Your task to perform on an android device: delete browsing data in the chrome app Image 0: 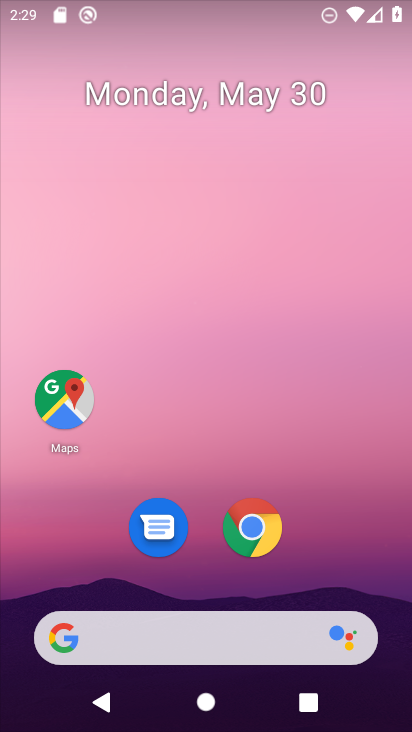
Step 0: press back button
Your task to perform on an android device: delete browsing data in the chrome app Image 1: 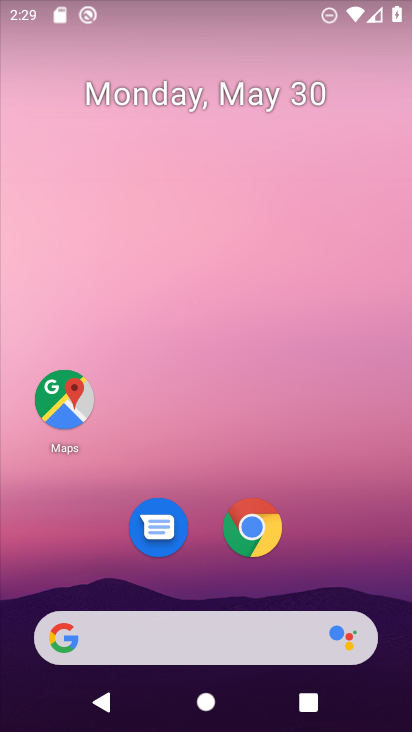
Step 1: drag from (278, 626) to (241, 193)
Your task to perform on an android device: delete browsing data in the chrome app Image 2: 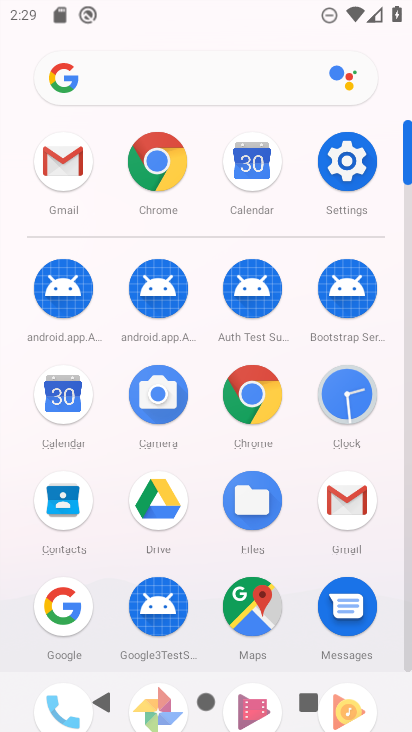
Step 2: click (151, 154)
Your task to perform on an android device: delete browsing data in the chrome app Image 3: 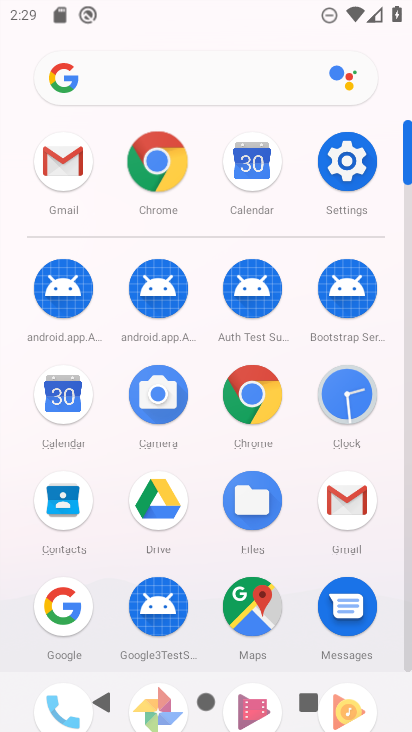
Step 3: click (164, 160)
Your task to perform on an android device: delete browsing data in the chrome app Image 4: 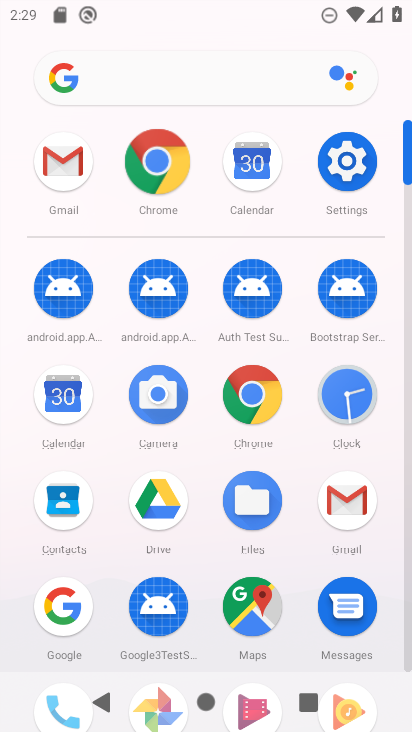
Step 4: click (164, 160)
Your task to perform on an android device: delete browsing data in the chrome app Image 5: 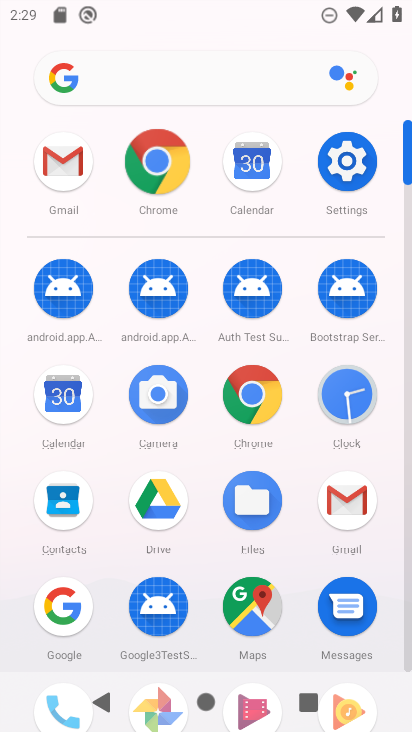
Step 5: click (165, 161)
Your task to perform on an android device: delete browsing data in the chrome app Image 6: 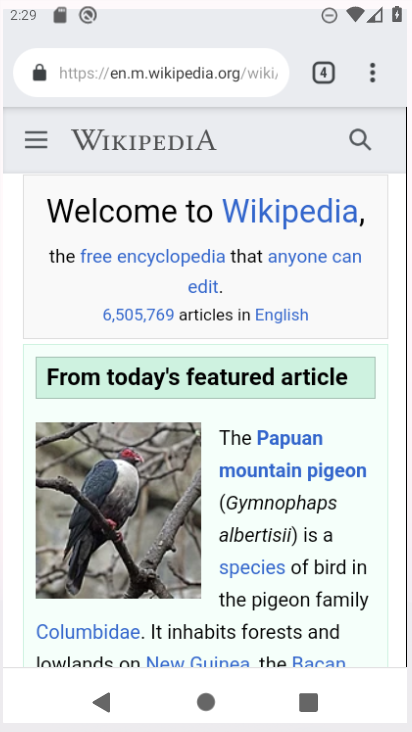
Step 6: click (168, 156)
Your task to perform on an android device: delete browsing data in the chrome app Image 7: 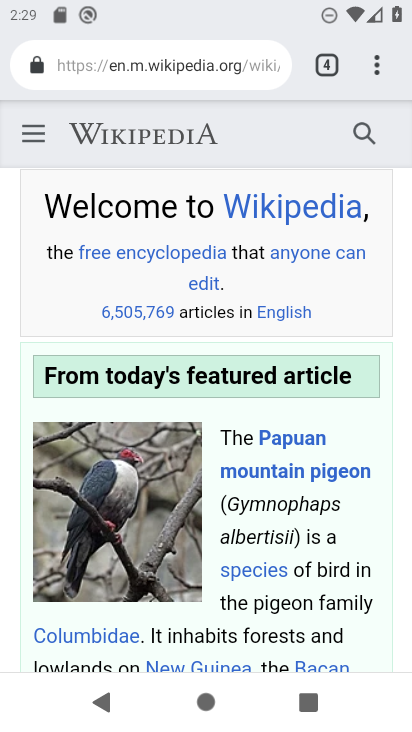
Step 7: click (169, 155)
Your task to perform on an android device: delete browsing data in the chrome app Image 8: 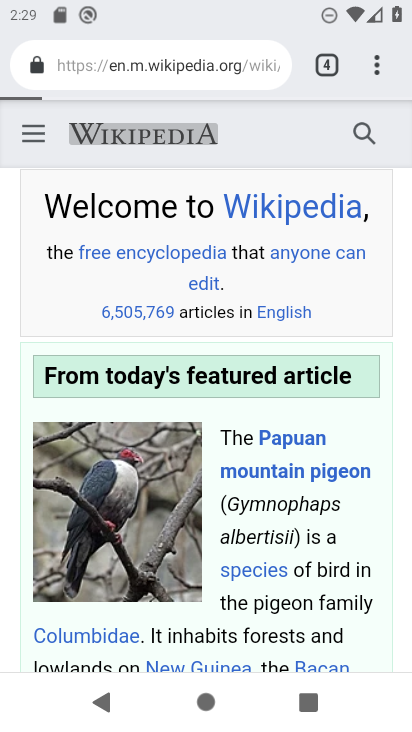
Step 8: click (169, 155)
Your task to perform on an android device: delete browsing data in the chrome app Image 9: 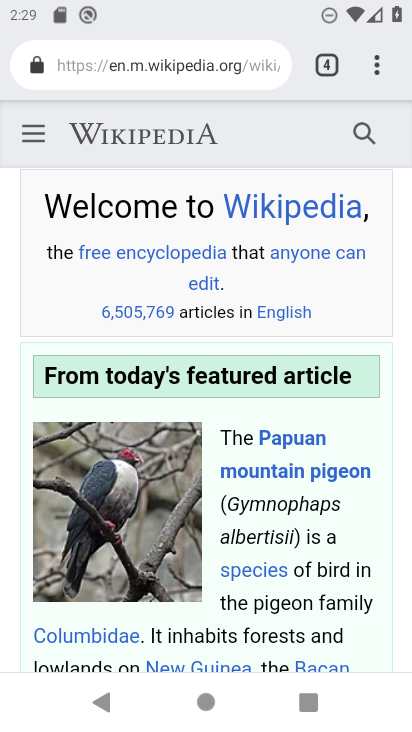
Step 9: drag from (376, 63) to (127, 369)
Your task to perform on an android device: delete browsing data in the chrome app Image 10: 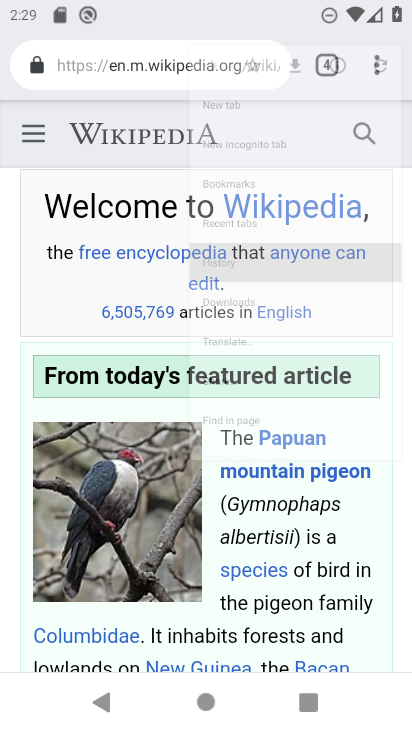
Step 10: click (127, 369)
Your task to perform on an android device: delete browsing data in the chrome app Image 11: 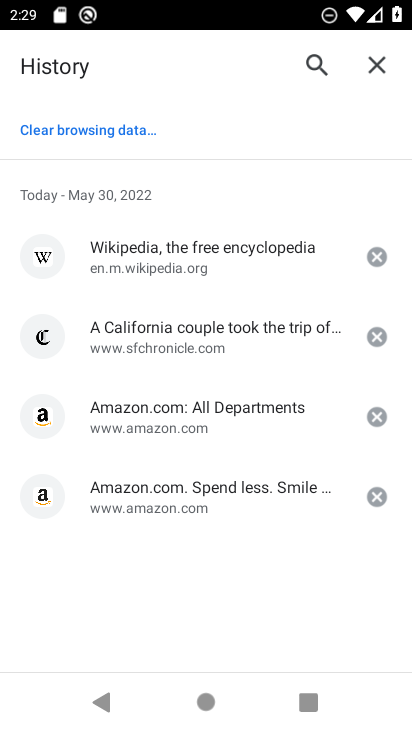
Step 11: click (105, 140)
Your task to perform on an android device: delete browsing data in the chrome app Image 12: 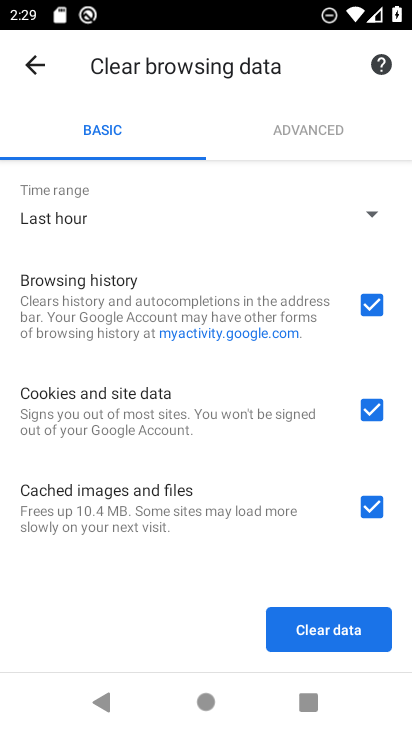
Step 12: click (330, 628)
Your task to perform on an android device: delete browsing data in the chrome app Image 13: 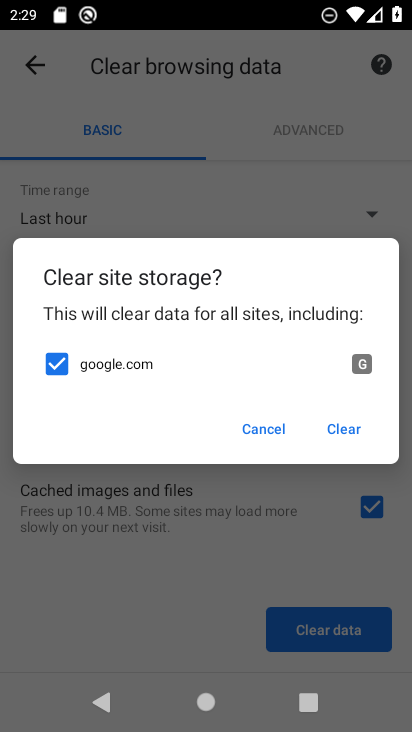
Step 13: click (341, 421)
Your task to perform on an android device: delete browsing data in the chrome app Image 14: 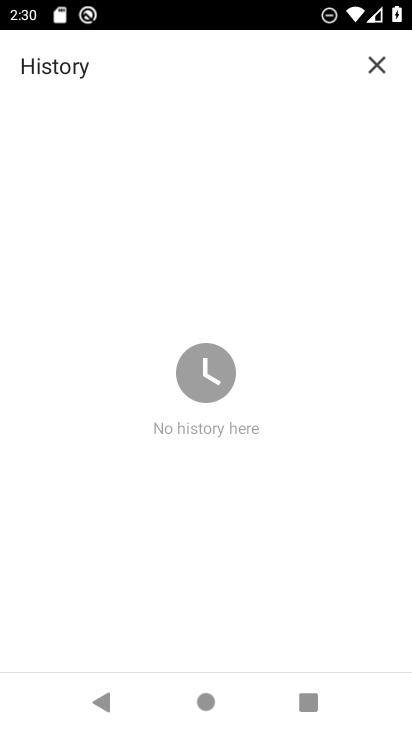
Step 14: task complete